Your task to perform on an android device: empty trash in the gmail app Image 0: 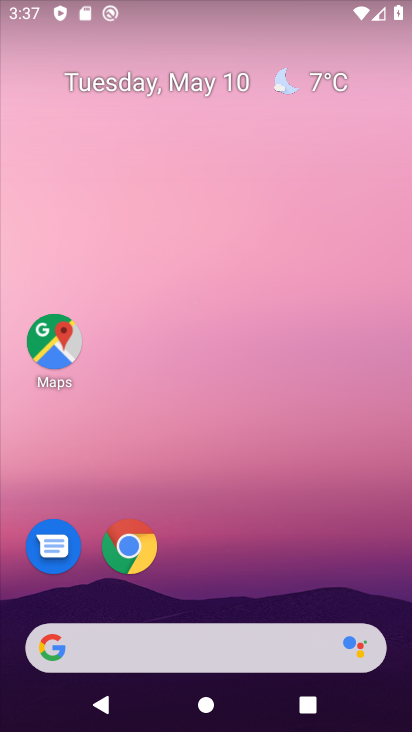
Step 0: drag from (236, 552) to (212, 175)
Your task to perform on an android device: empty trash in the gmail app Image 1: 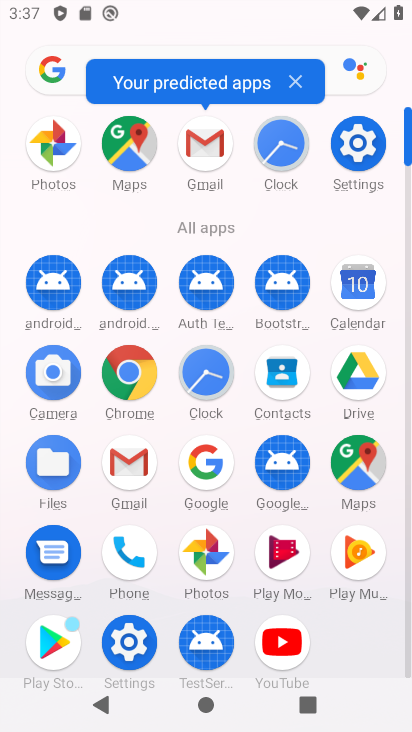
Step 1: click (140, 459)
Your task to perform on an android device: empty trash in the gmail app Image 2: 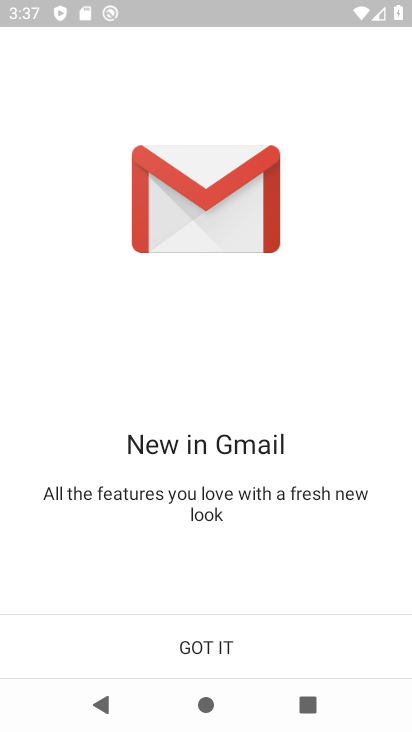
Step 2: click (170, 642)
Your task to perform on an android device: empty trash in the gmail app Image 3: 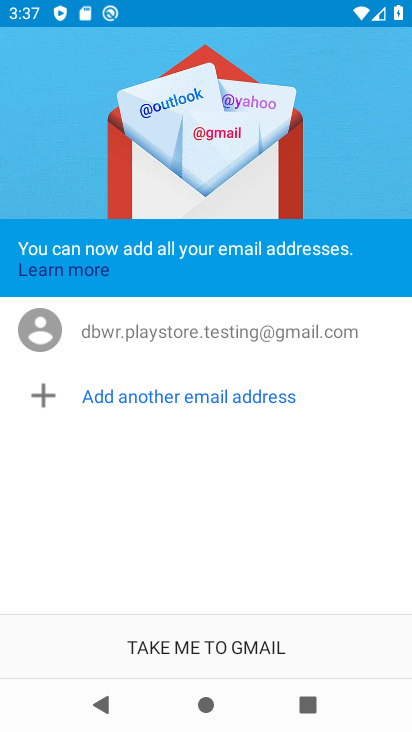
Step 3: click (171, 659)
Your task to perform on an android device: empty trash in the gmail app Image 4: 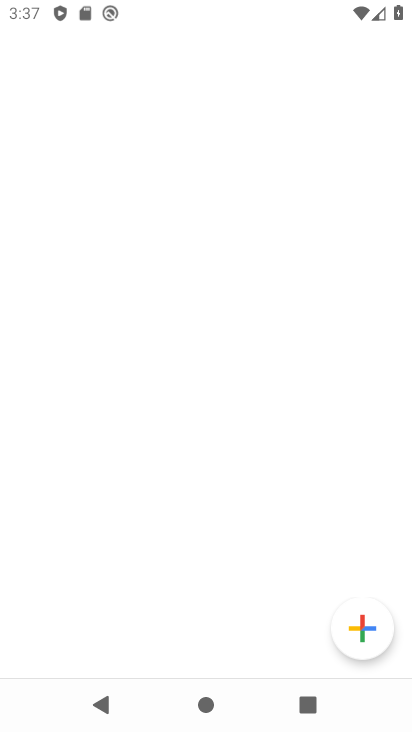
Step 4: click (194, 643)
Your task to perform on an android device: empty trash in the gmail app Image 5: 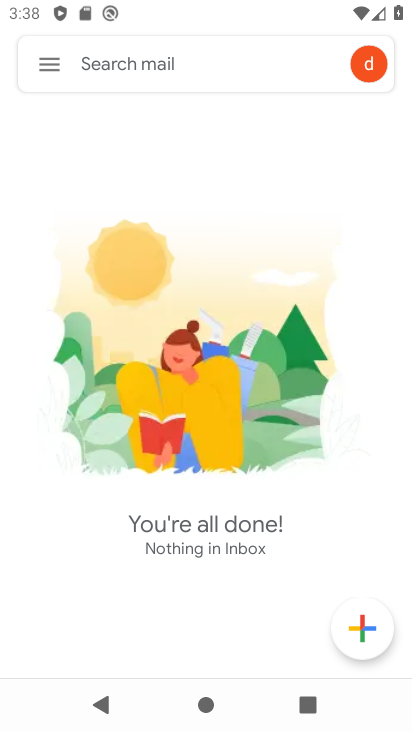
Step 5: click (49, 59)
Your task to perform on an android device: empty trash in the gmail app Image 6: 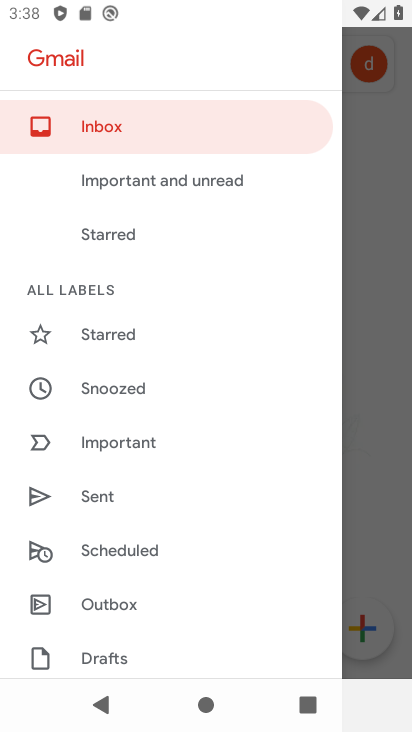
Step 6: drag from (131, 564) to (213, 206)
Your task to perform on an android device: empty trash in the gmail app Image 7: 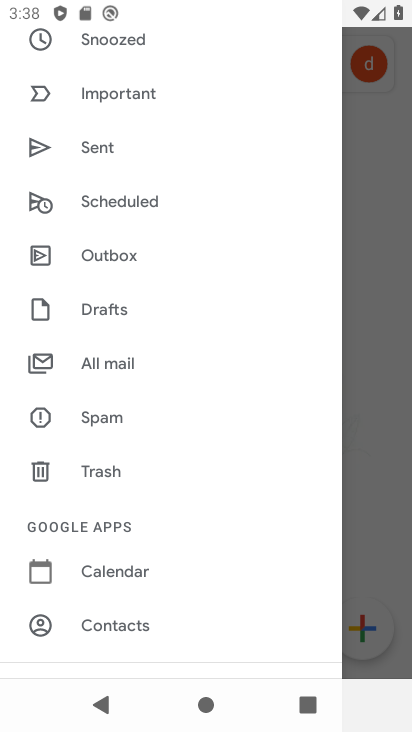
Step 7: click (90, 484)
Your task to perform on an android device: empty trash in the gmail app Image 8: 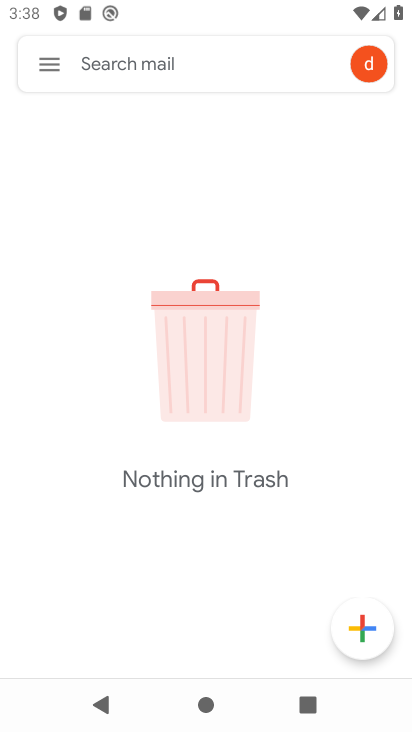
Step 8: task complete